Your task to perform on an android device: Open Google Chrome and open the bookmarks view Image 0: 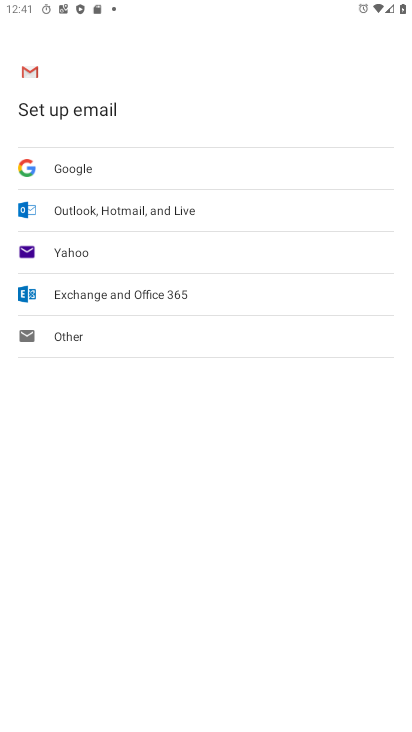
Step 0: press home button
Your task to perform on an android device: Open Google Chrome and open the bookmarks view Image 1: 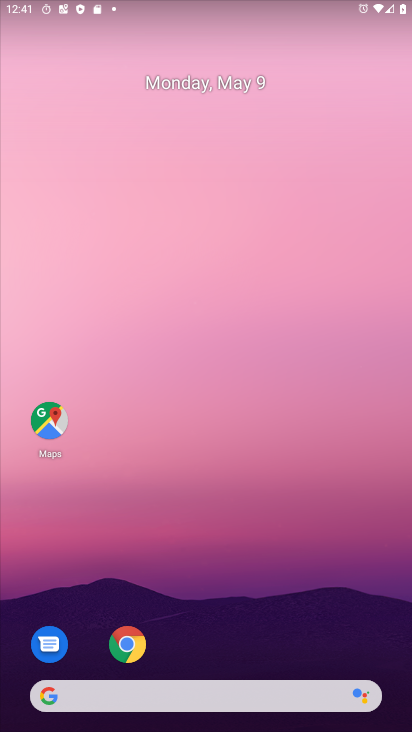
Step 1: drag from (224, 699) to (206, 273)
Your task to perform on an android device: Open Google Chrome and open the bookmarks view Image 2: 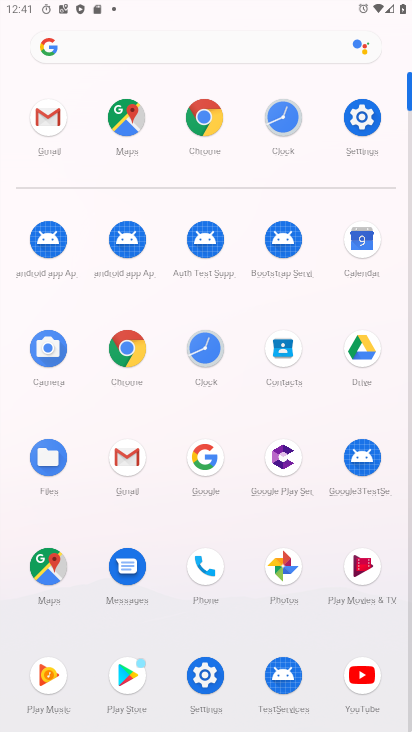
Step 2: click (199, 121)
Your task to perform on an android device: Open Google Chrome and open the bookmarks view Image 3: 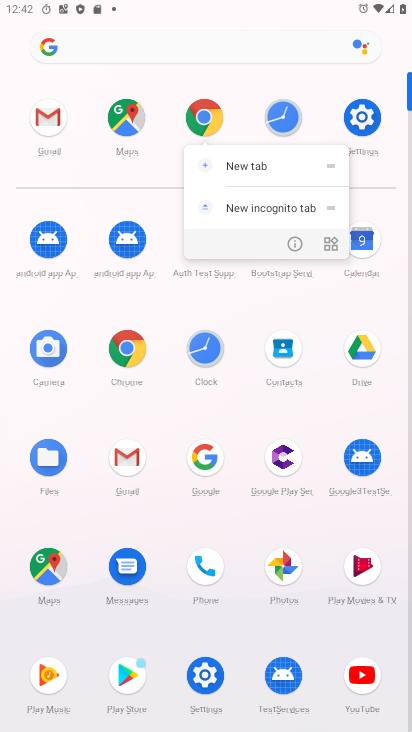
Step 3: click (196, 118)
Your task to perform on an android device: Open Google Chrome and open the bookmarks view Image 4: 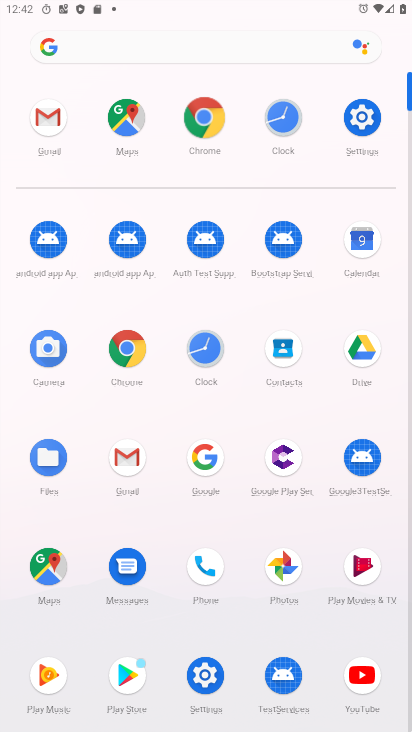
Step 4: click (197, 119)
Your task to perform on an android device: Open Google Chrome and open the bookmarks view Image 5: 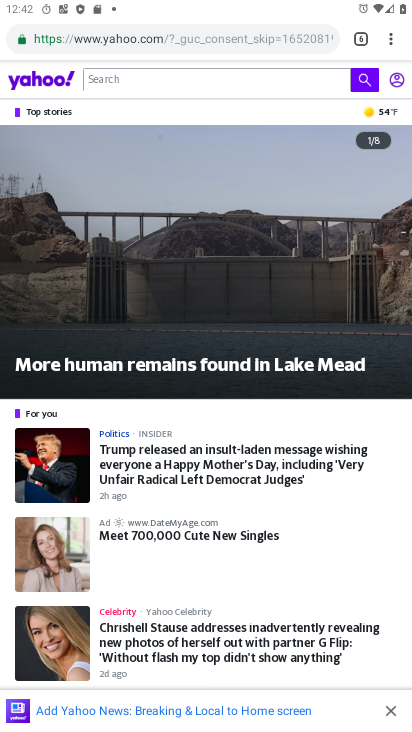
Step 5: drag from (392, 30) to (266, 154)
Your task to perform on an android device: Open Google Chrome and open the bookmarks view Image 6: 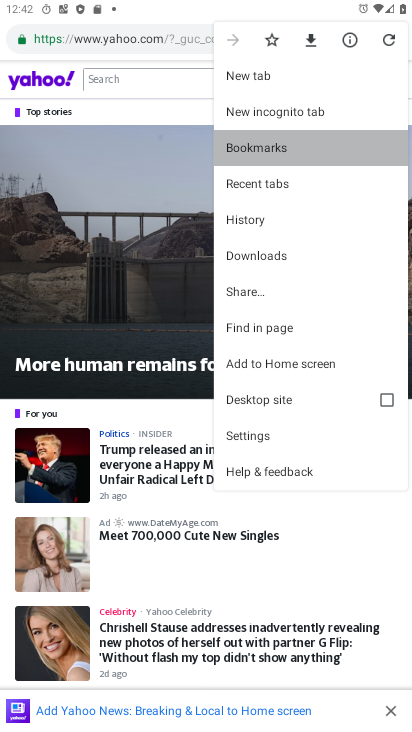
Step 6: click (266, 154)
Your task to perform on an android device: Open Google Chrome and open the bookmarks view Image 7: 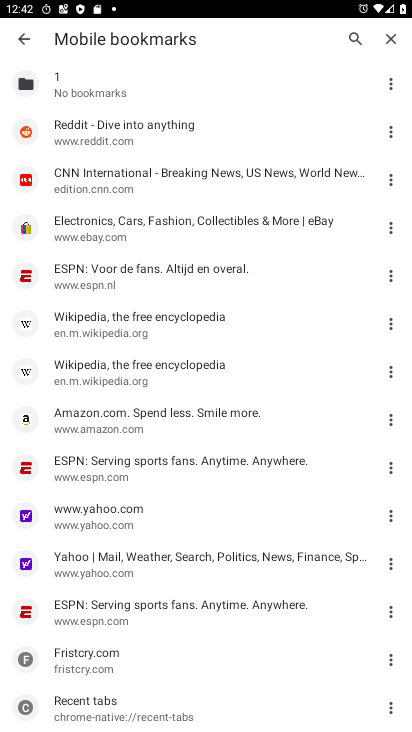
Step 7: task complete